Your task to perform on an android device: set the timer Image 0: 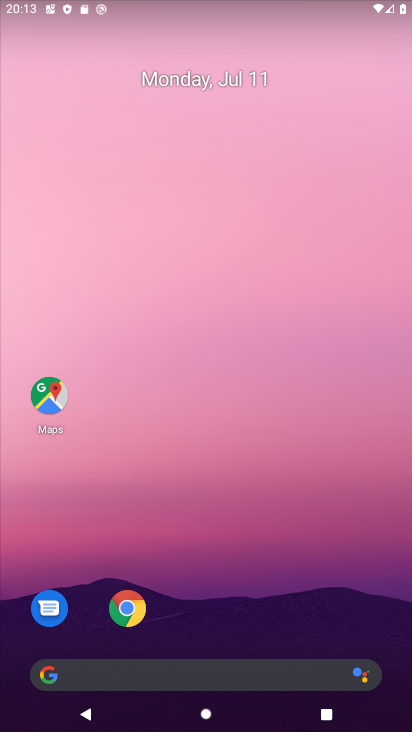
Step 0: drag from (266, 608) to (234, 31)
Your task to perform on an android device: set the timer Image 1: 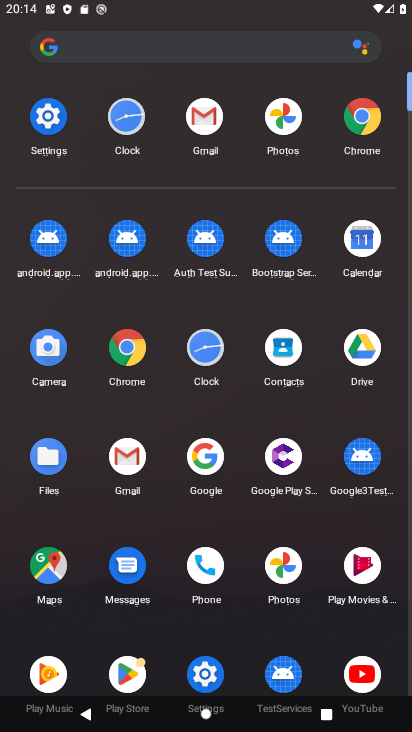
Step 1: click (138, 120)
Your task to perform on an android device: set the timer Image 2: 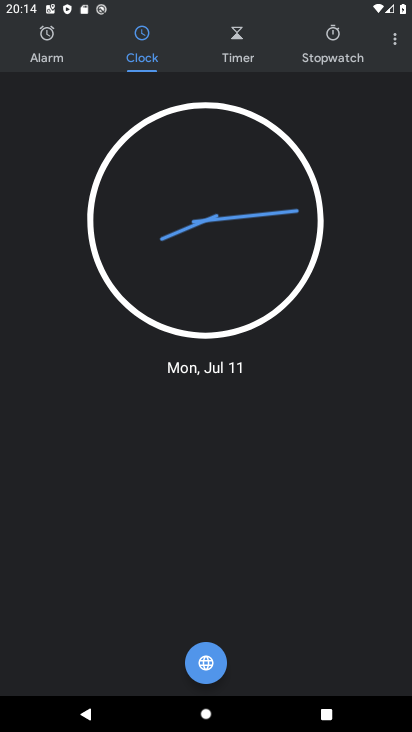
Step 2: click (237, 55)
Your task to perform on an android device: set the timer Image 3: 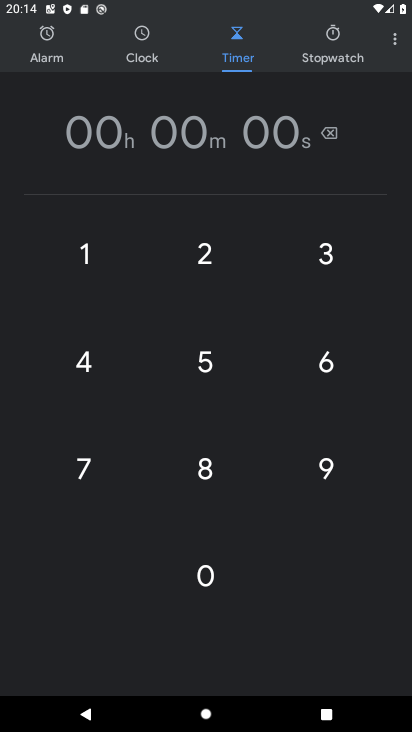
Step 3: task complete